Your task to perform on an android device: turn on sleep mode Image 0: 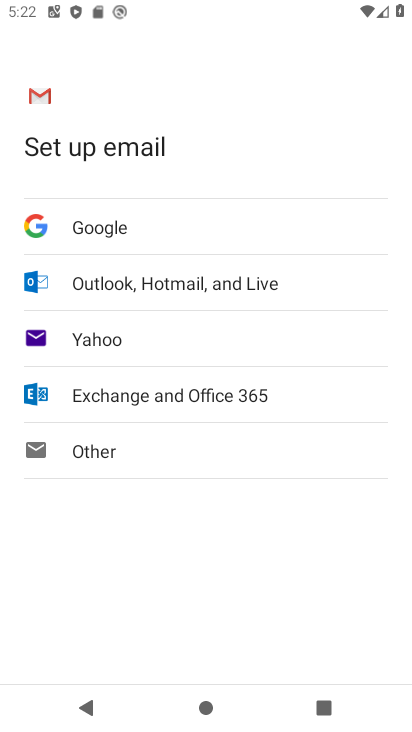
Step 0: press back button
Your task to perform on an android device: turn on sleep mode Image 1: 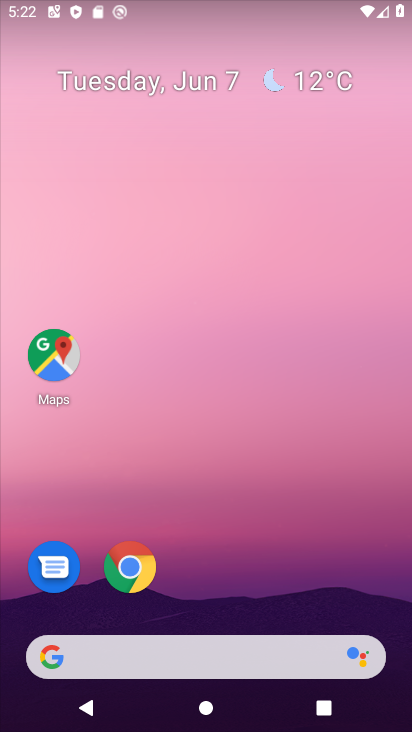
Step 1: drag from (256, 571) to (234, 0)
Your task to perform on an android device: turn on sleep mode Image 2: 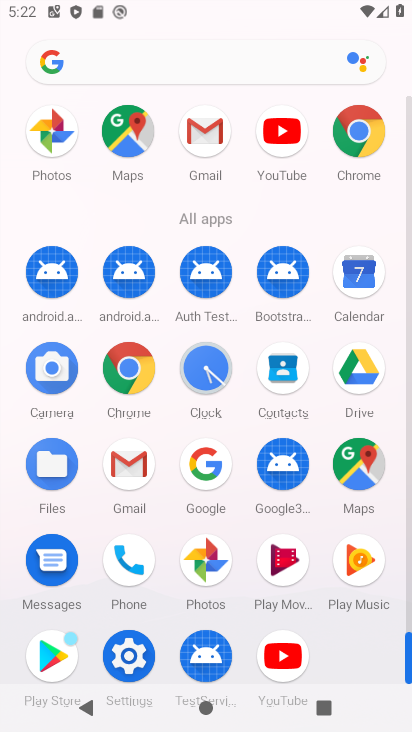
Step 2: drag from (13, 573) to (16, 210)
Your task to perform on an android device: turn on sleep mode Image 3: 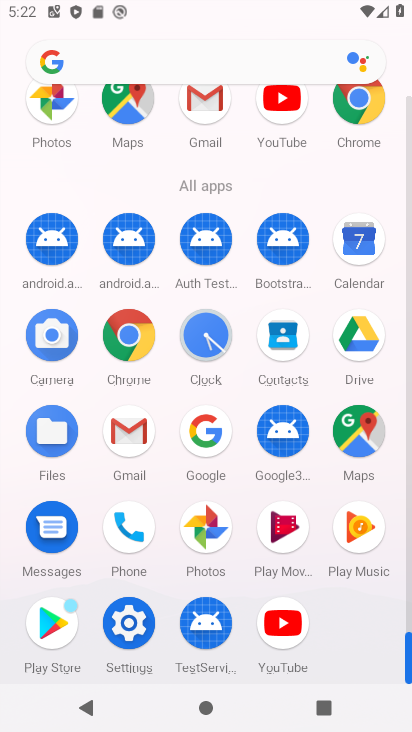
Step 3: click (129, 617)
Your task to perform on an android device: turn on sleep mode Image 4: 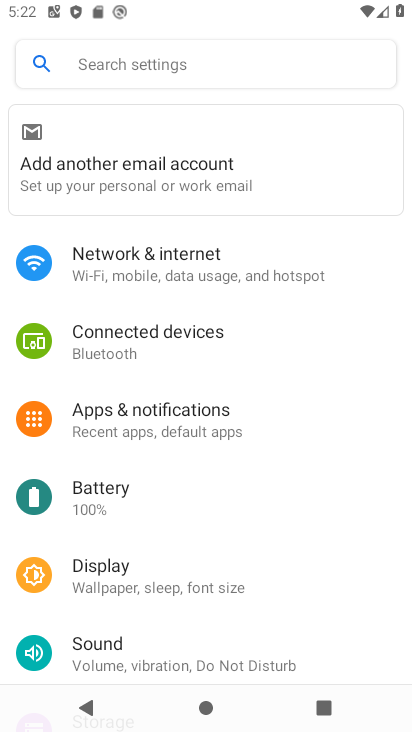
Step 4: drag from (300, 605) to (303, 150)
Your task to perform on an android device: turn on sleep mode Image 5: 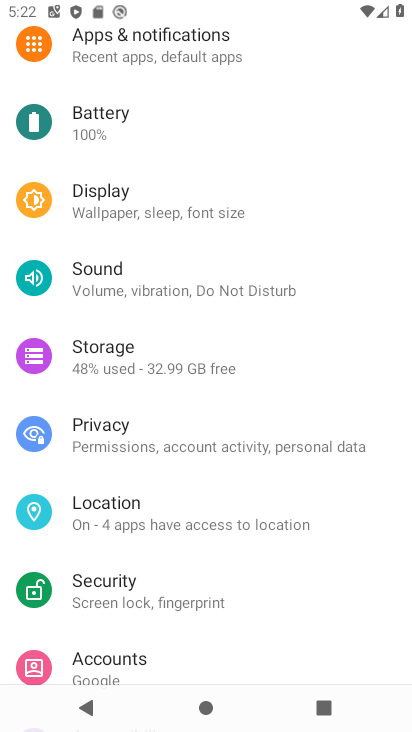
Step 5: click (209, 203)
Your task to perform on an android device: turn on sleep mode Image 6: 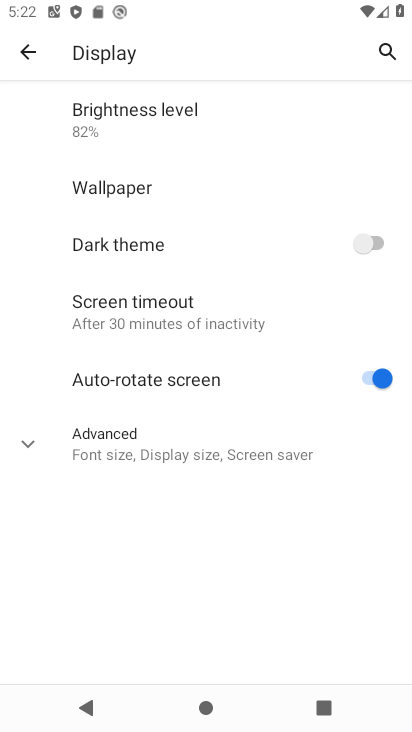
Step 6: click (36, 453)
Your task to perform on an android device: turn on sleep mode Image 7: 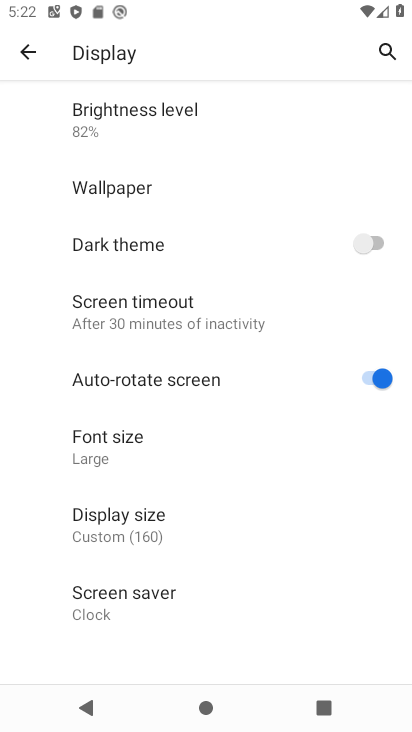
Step 7: task complete